Your task to perform on an android device: Empty the shopping cart on bestbuy. Add "panasonic triple a" to the cart on bestbuy Image 0: 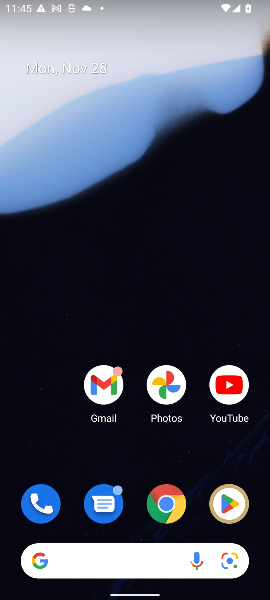
Step 0: click (168, 509)
Your task to perform on an android device: Empty the shopping cart on bestbuy. Add "panasonic triple a" to the cart on bestbuy Image 1: 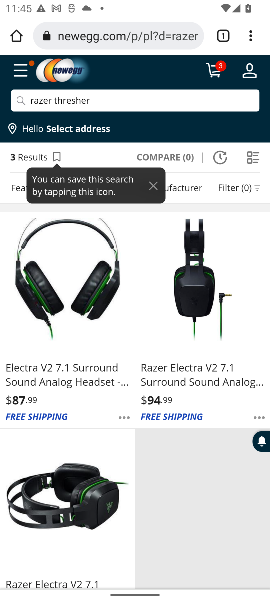
Step 1: click (112, 38)
Your task to perform on an android device: Empty the shopping cart on bestbuy. Add "panasonic triple a" to the cart on bestbuy Image 2: 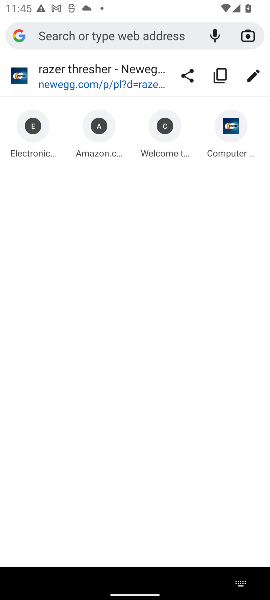
Step 2: type "bestbuy.com"
Your task to perform on an android device: Empty the shopping cart on bestbuy. Add "panasonic triple a" to the cart on bestbuy Image 3: 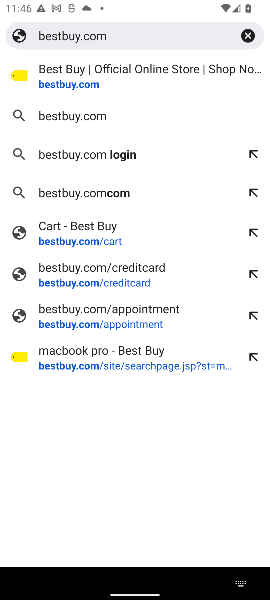
Step 3: click (65, 84)
Your task to perform on an android device: Empty the shopping cart on bestbuy. Add "panasonic triple a" to the cart on bestbuy Image 4: 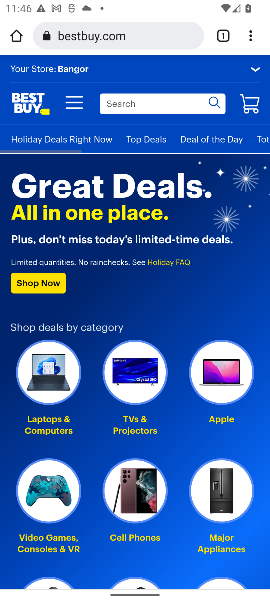
Step 4: click (245, 105)
Your task to perform on an android device: Empty the shopping cart on bestbuy. Add "panasonic triple a" to the cart on bestbuy Image 5: 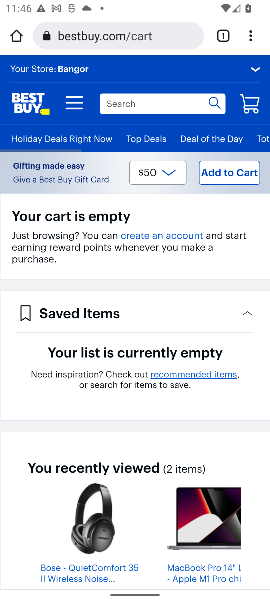
Step 5: click (133, 102)
Your task to perform on an android device: Empty the shopping cart on bestbuy. Add "panasonic triple a" to the cart on bestbuy Image 6: 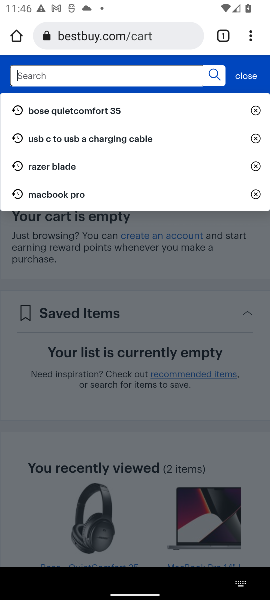
Step 6: type "panasonic triple a"
Your task to perform on an android device: Empty the shopping cart on bestbuy. Add "panasonic triple a" to the cart on bestbuy Image 7: 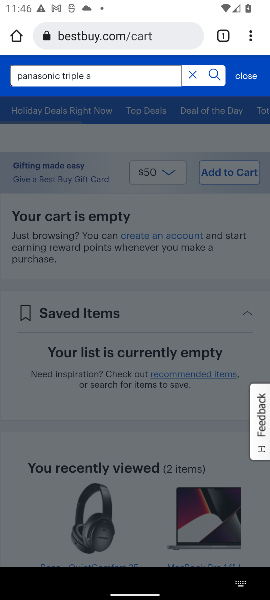
Step 7: click (215, 71)
Your task to perform on an android device: Empty the shopping cart on bestbuy. Add "panasonic triple a" to the cart on bestbuy Image 8: 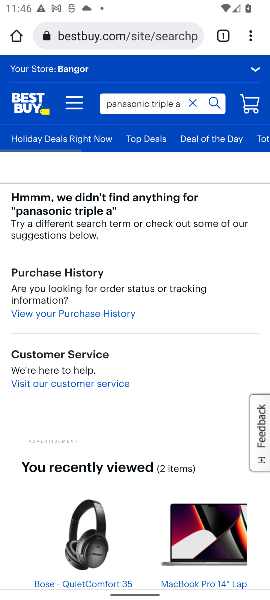
Step 8: task complete